Your task to perform on an android device: Open privacy settings Image 0: 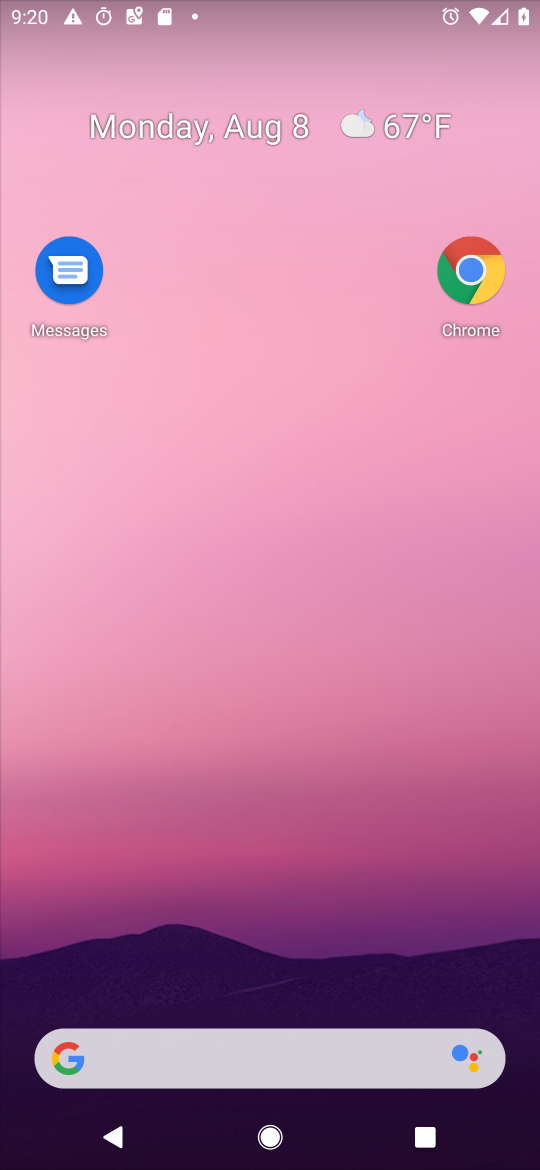
Step 0: drag from (250, 990) to (327, 456)
Your task to perform on an android device: Open privacy settings Image 1: 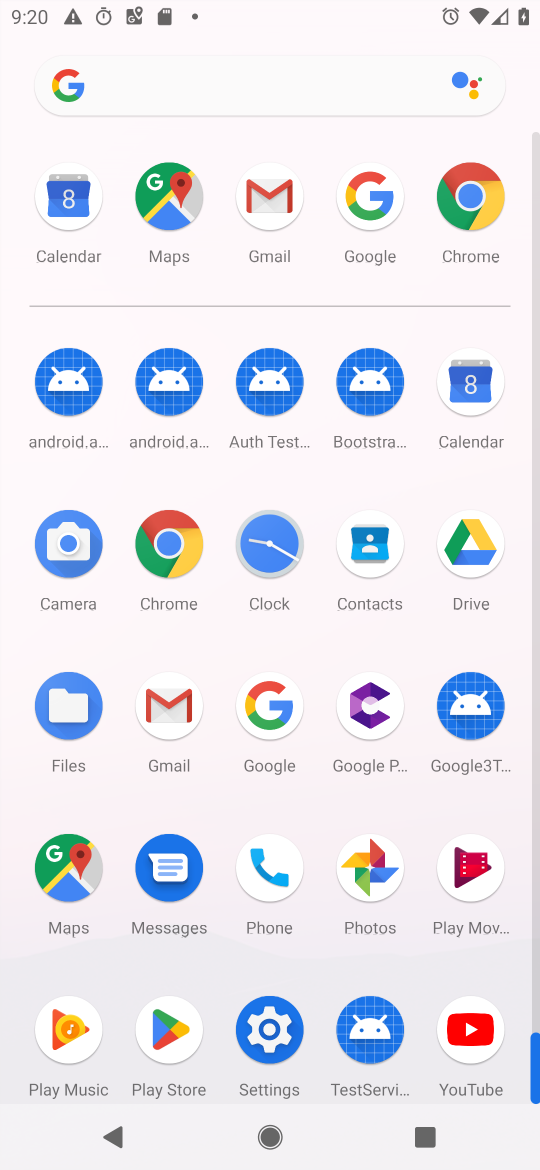
Step 1: click (279, 1013)
Your task to perform on an android device: Open privacy settings Image 2: 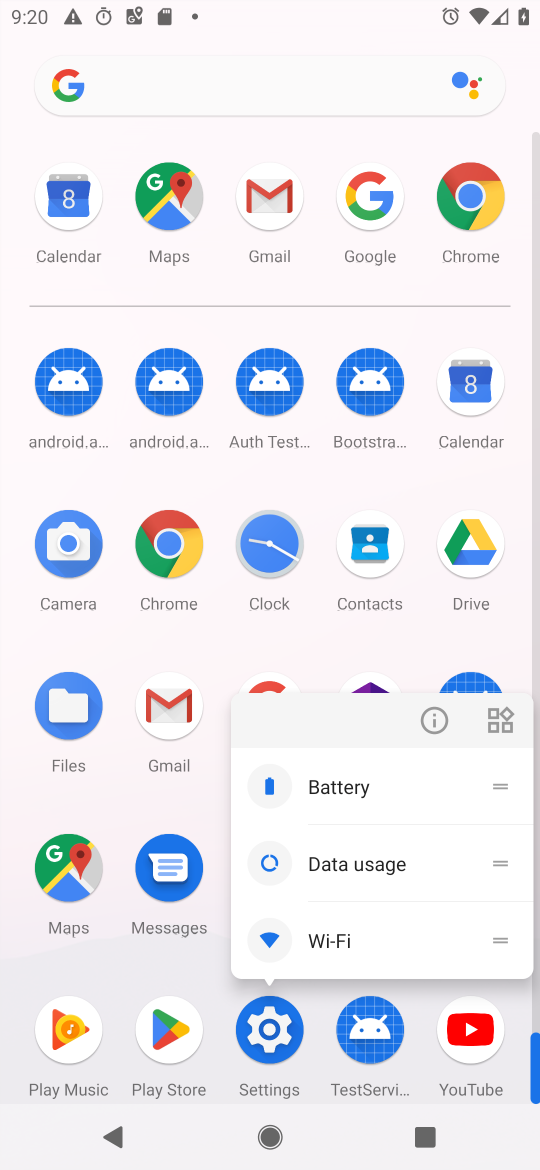
Step 2: click (446, 728)
Your task to perform on an android device: Open privacy settings Image 3: 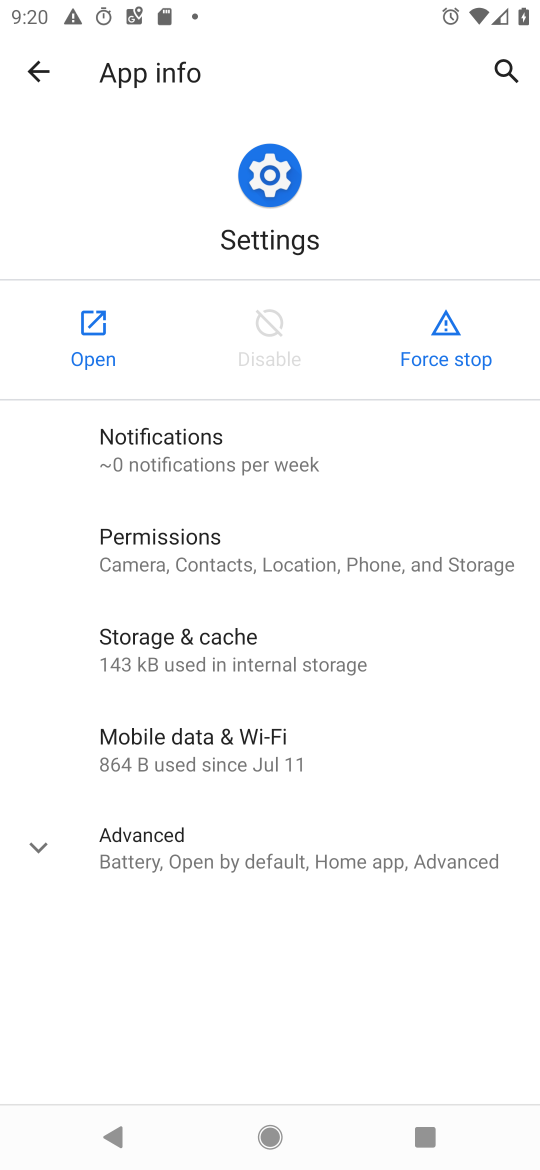
Step 3: click (95, 357)
Your task to perform on an android device: Open privacy settings Image 4: 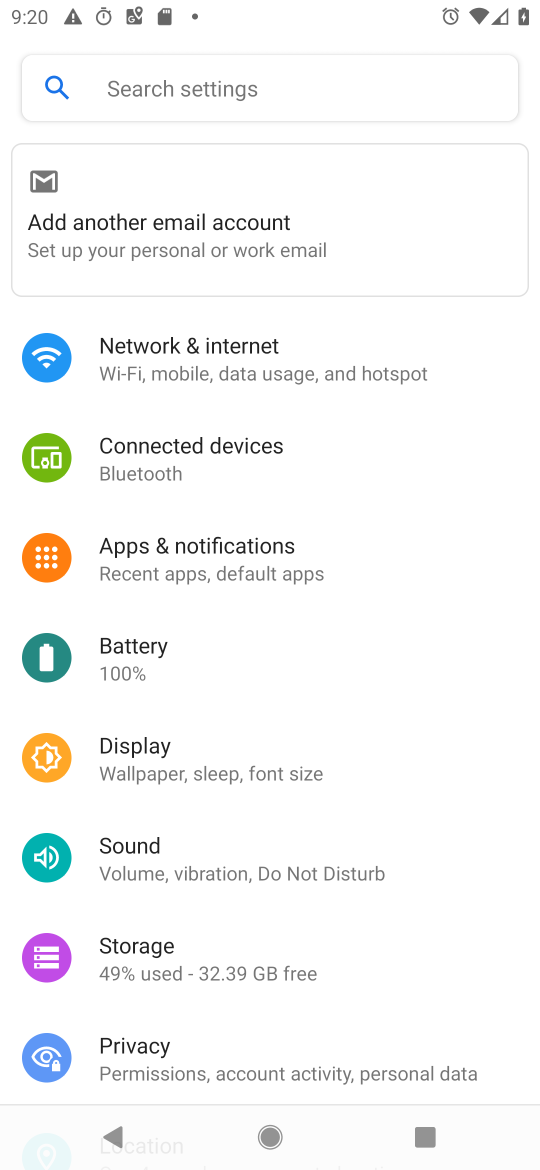
Step 4: drag from (267, 1035) to (333, 274)
Your task to perform on an android device: Open privacy settings Image 5: 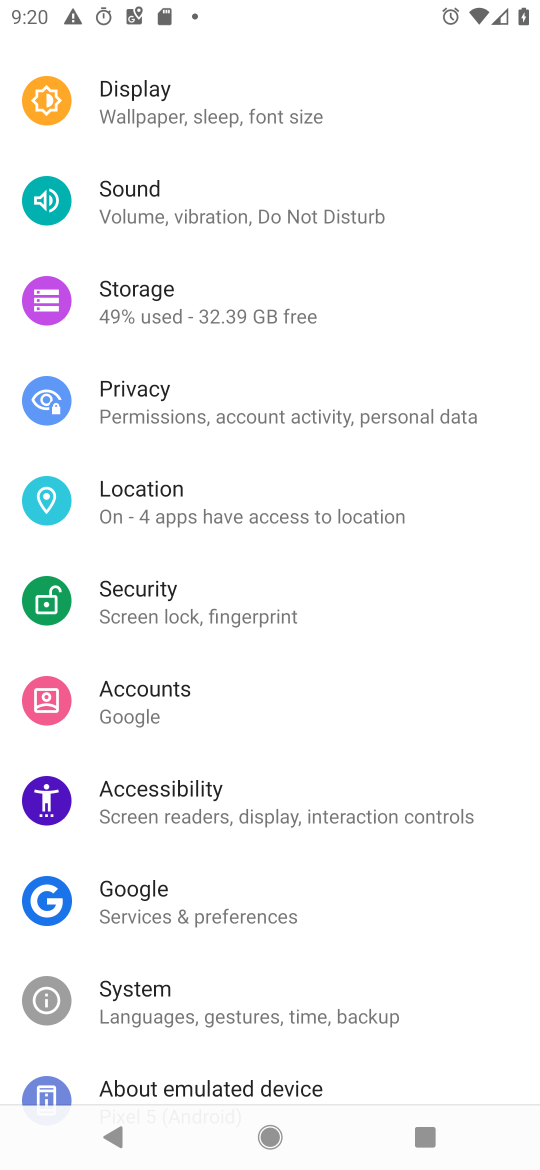
Step 5: click (174, 413)
Your task to perform on an android device: Open privacy settings Image 6: 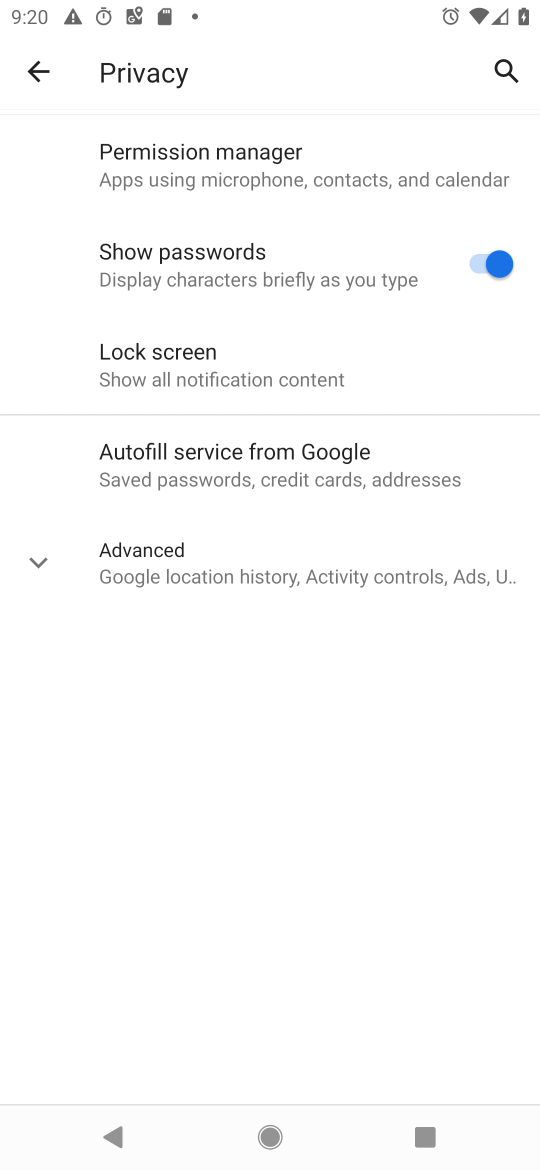
Step 6: click (251, 576)
Your task to perform on an android device: Open privacy settings Image 7: 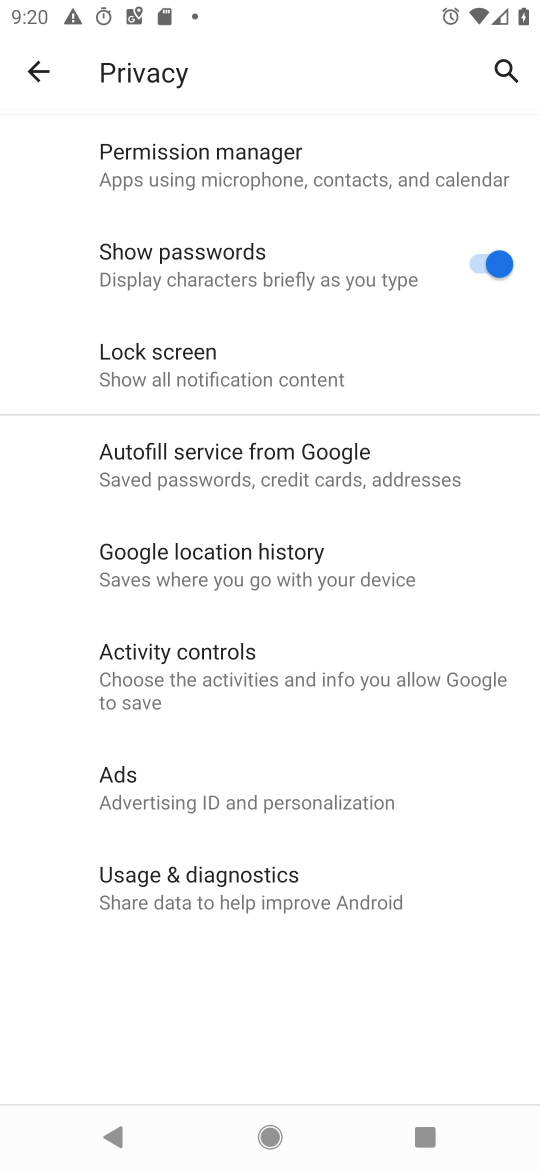
Step 7: task complete